Your task to perform on an android device: uninstall "Microsoft Outlook" Image 0: 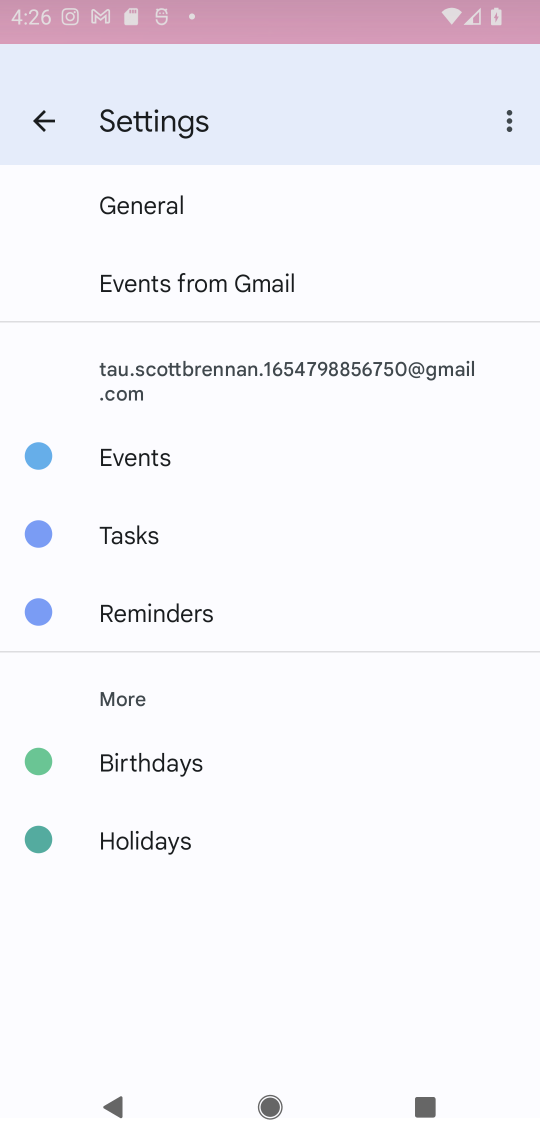
Step 0: press home button
Your task to perform on an android device: uninstall "Microsoft Outlook" Image 1: 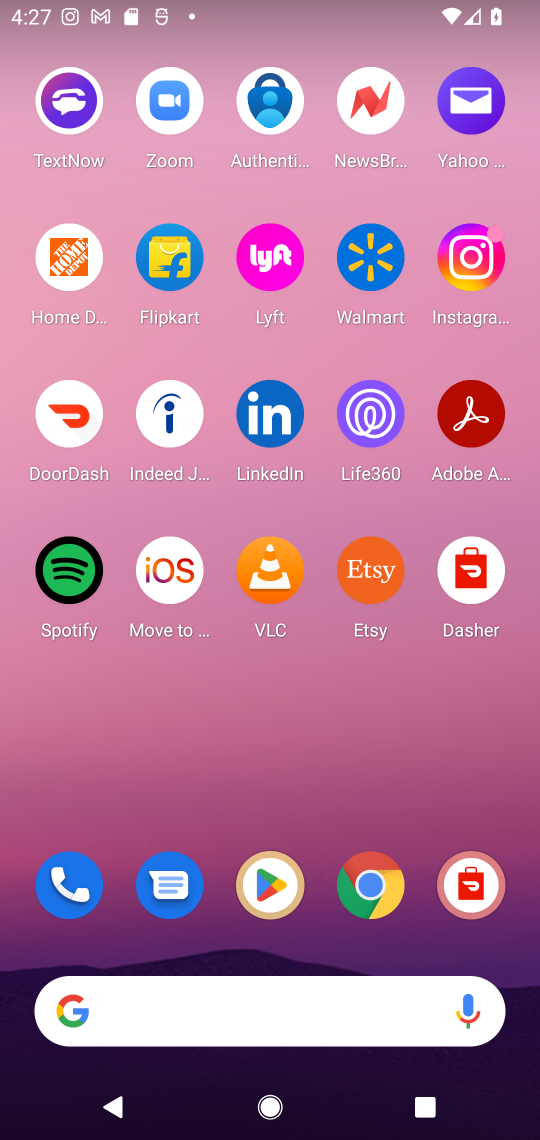
Step 1: click (264, 875)
Your task to perform on an android device: uninstall "Microsoft Outlook" Image 2: 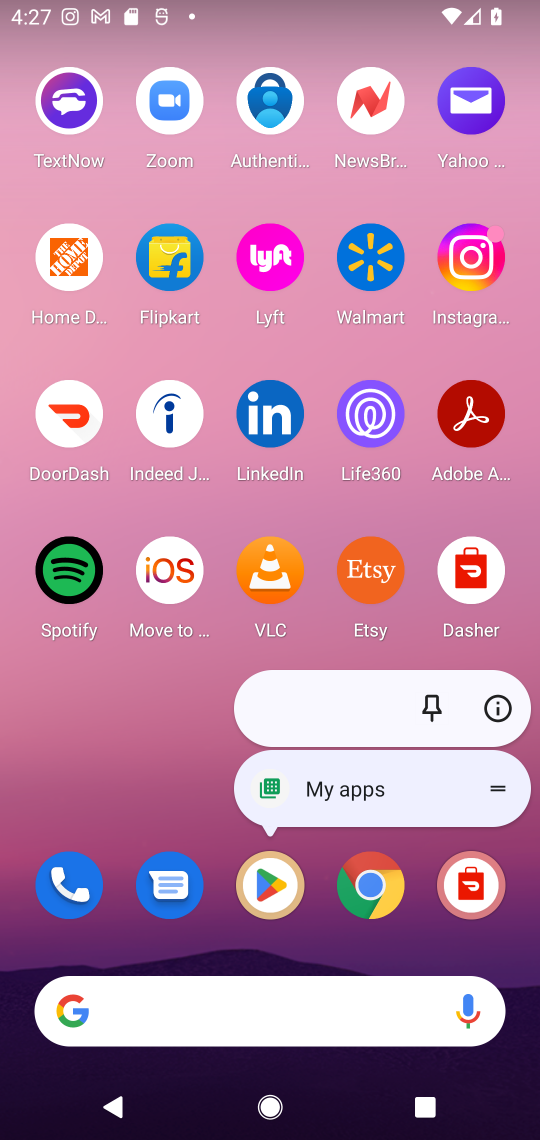
Step 2: click (264, 875)
Your task to perform on an android device: uninstall "Microsoft Outlook" Image 3: 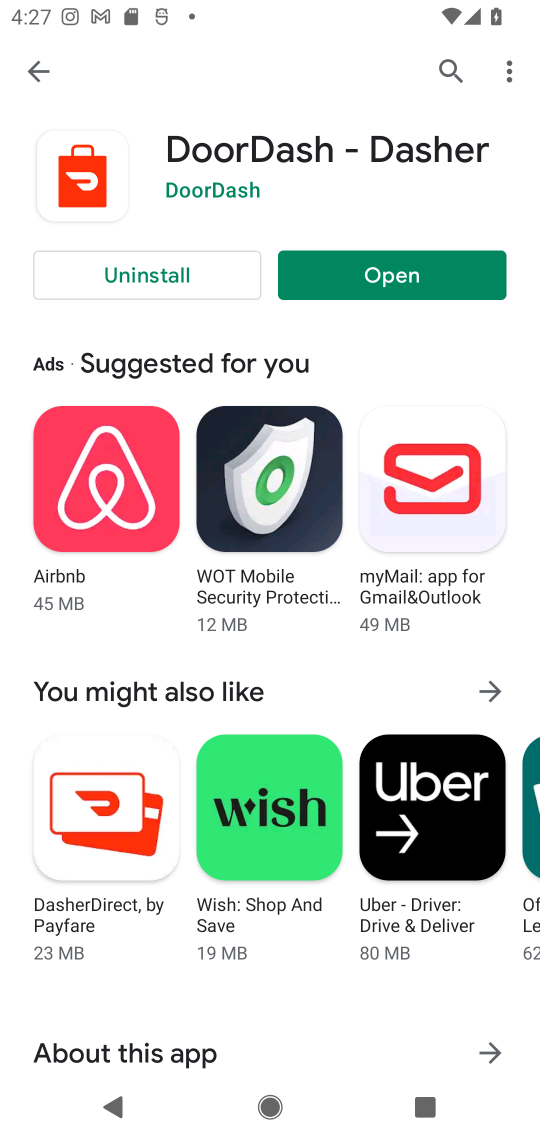
Step 3: click (453, 67)
Your task to perform on an android device: uninstall "Microsoft Outlook" Image 4: 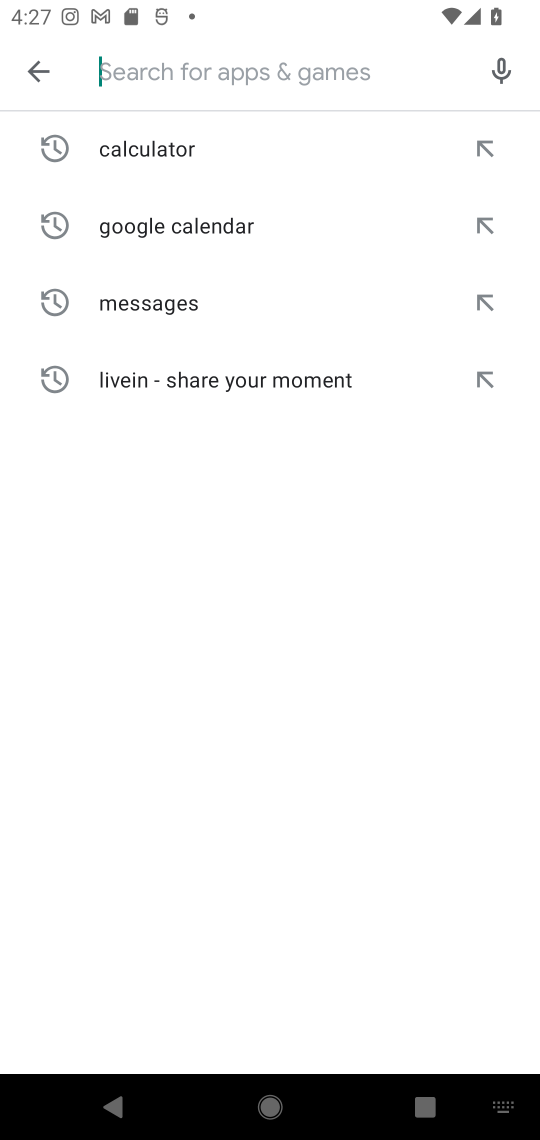
Step 4: type "Microsoft Outlook"
Your task to perform on an android device: uninstall "Microsoft Outlook" Image 5: 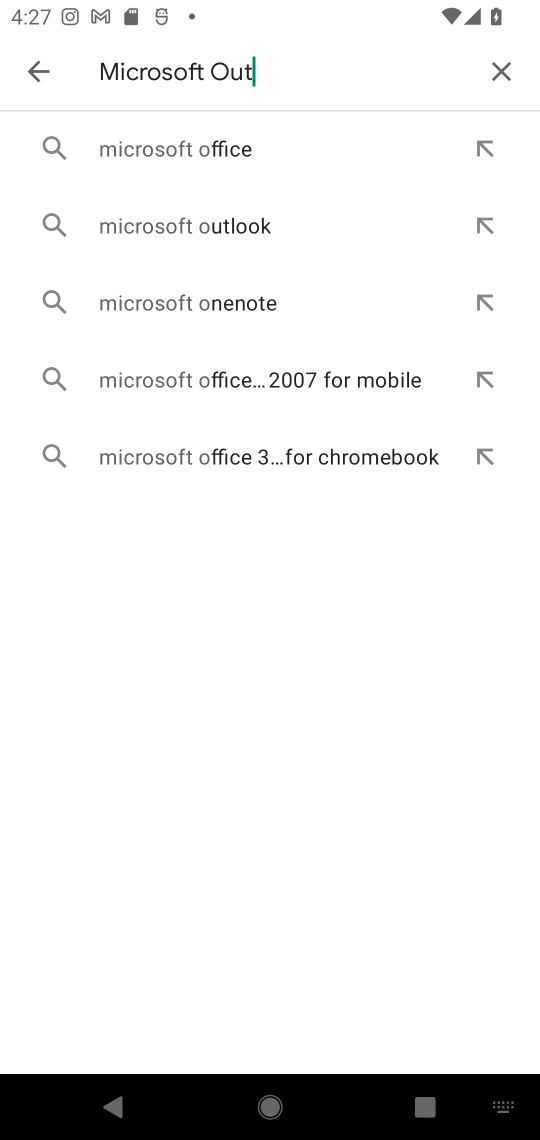
Step 5: type ""
Your task to perform on an android device: uninstall "Microsoft Outlook" Image 6: 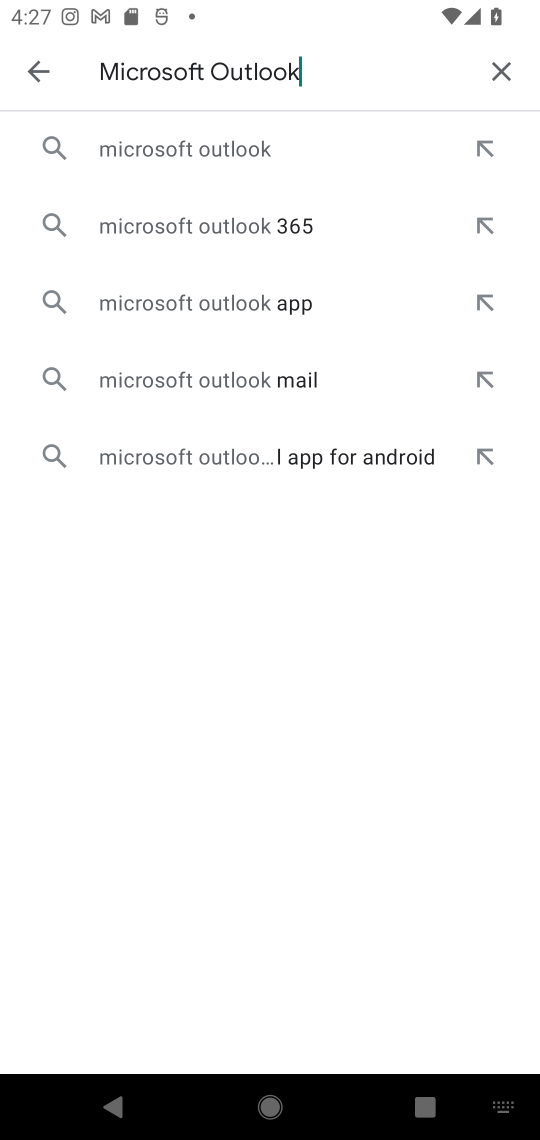
Step 6: click (281, 145)
Your task to perform on an android device: uninstall "Microsoft Outlook" Image 7: 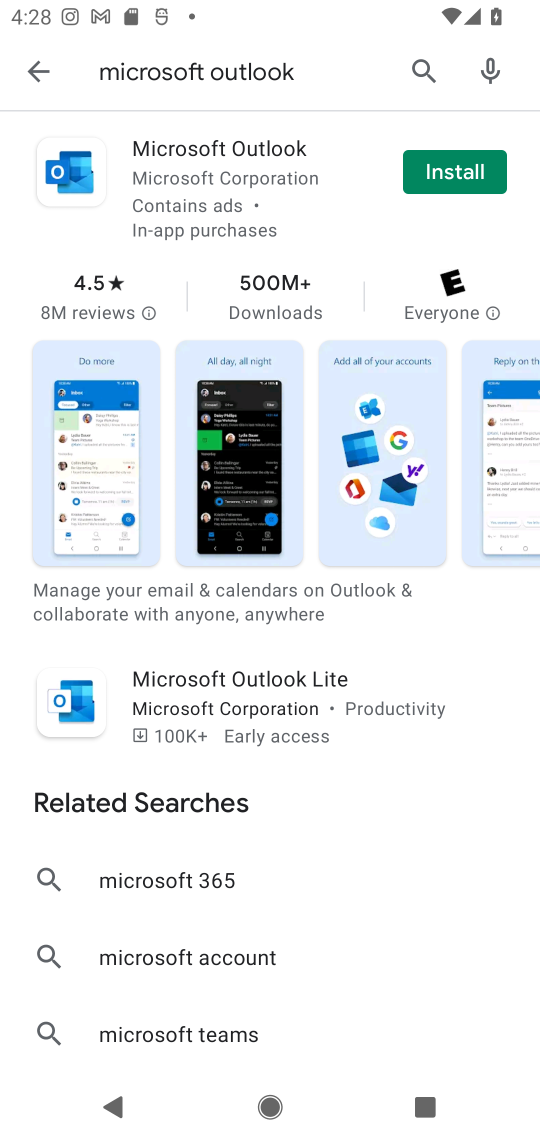
Step 7: task complete